Your task to perform on an android device: Open battery settings Image 0: 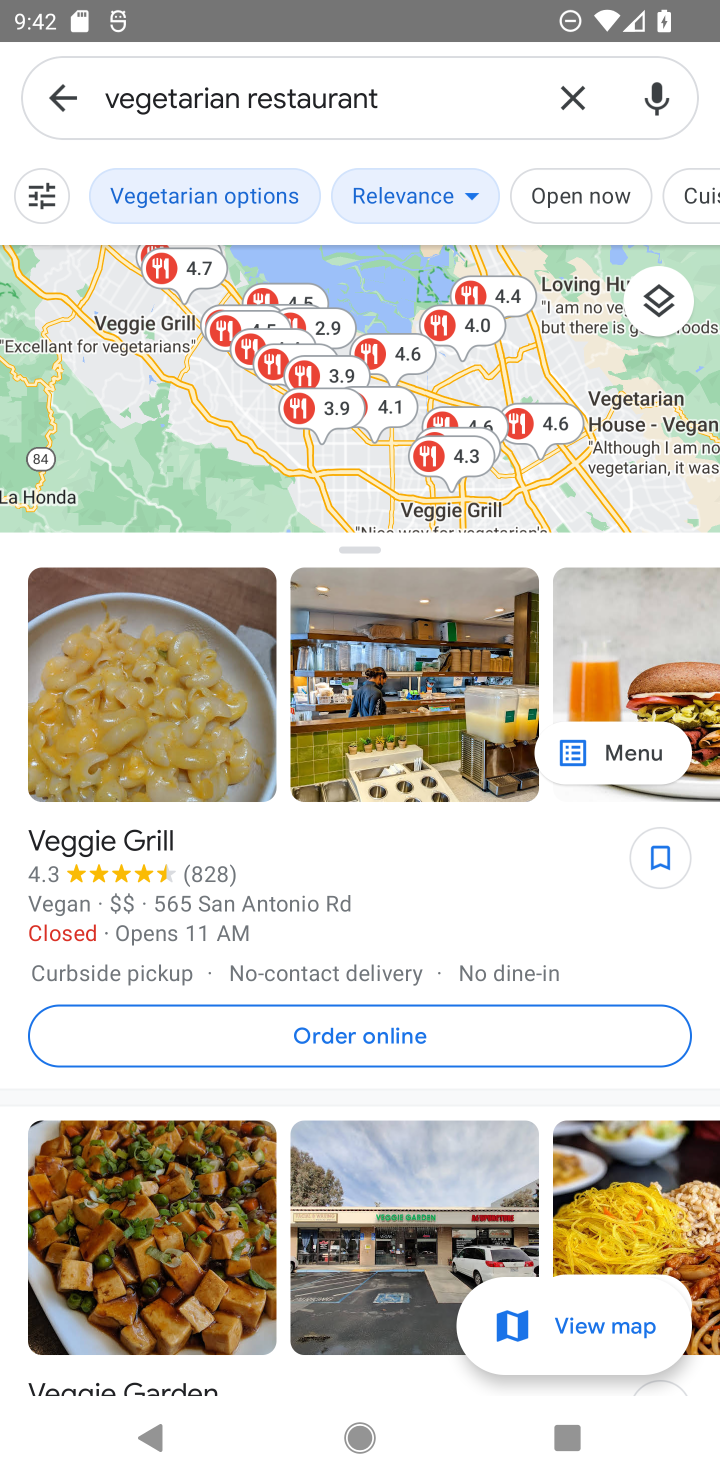
Step 0: press home button
Your task to perform on an android device: Open battery settings Image 1: 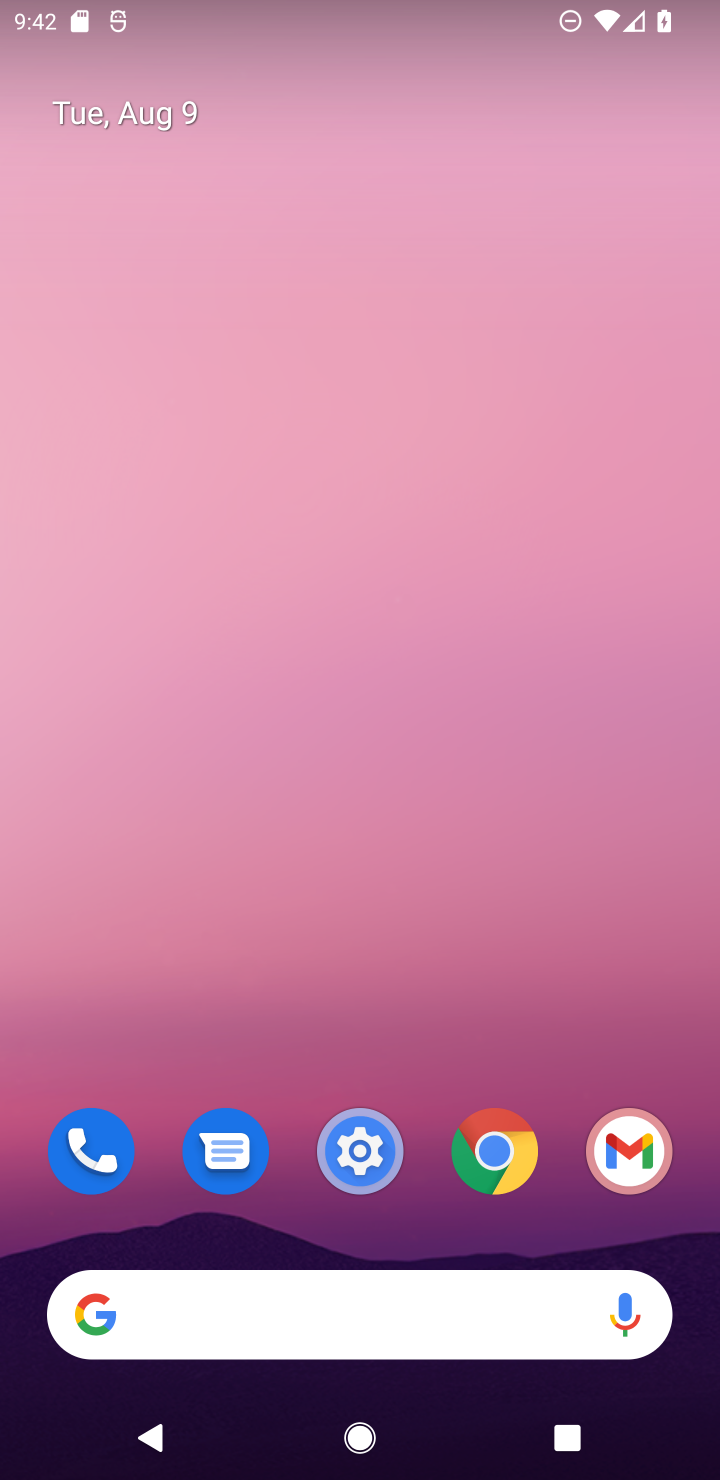
Step 1: click (362, 1175)
Your task to perform on an android device: Open battery settings Image 2: 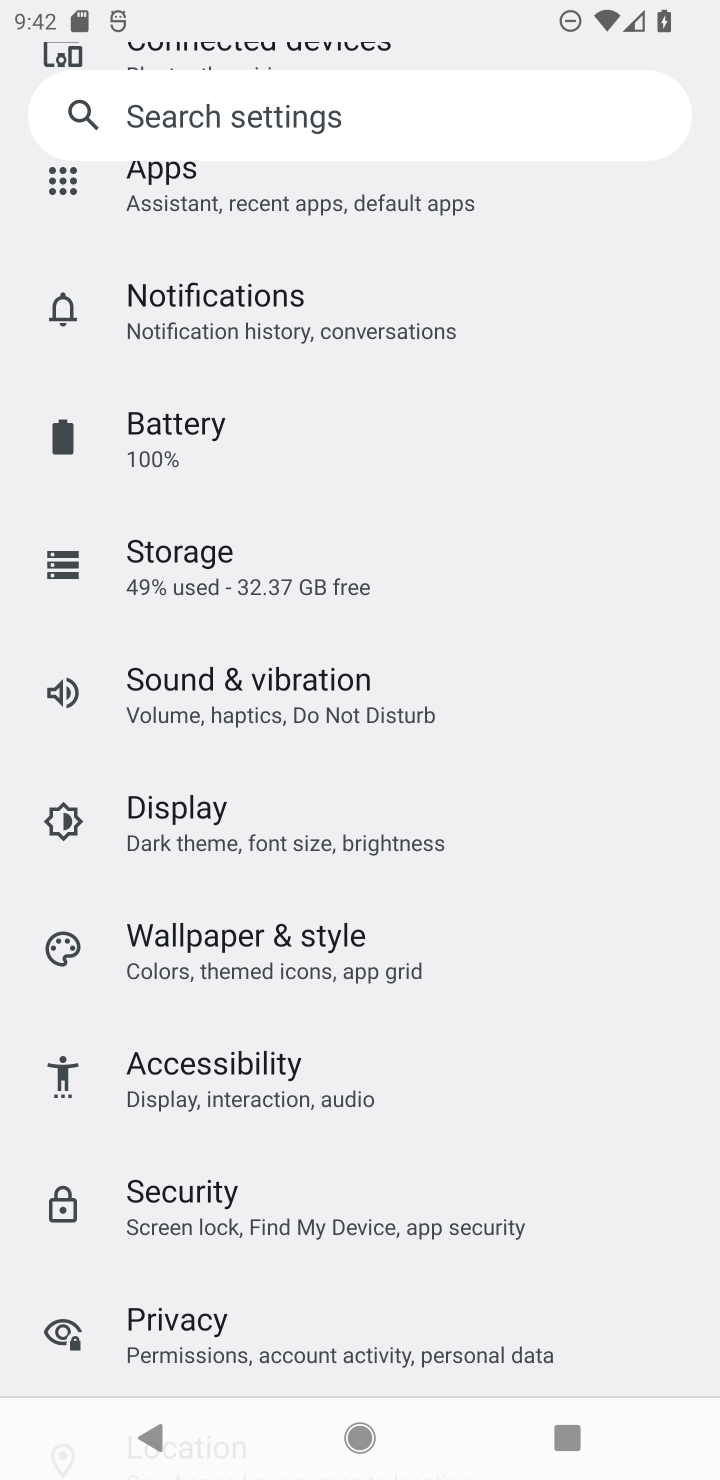
Step 2: click (264, 455)
Your task to perform on an android device: Open battery settings Image 3: 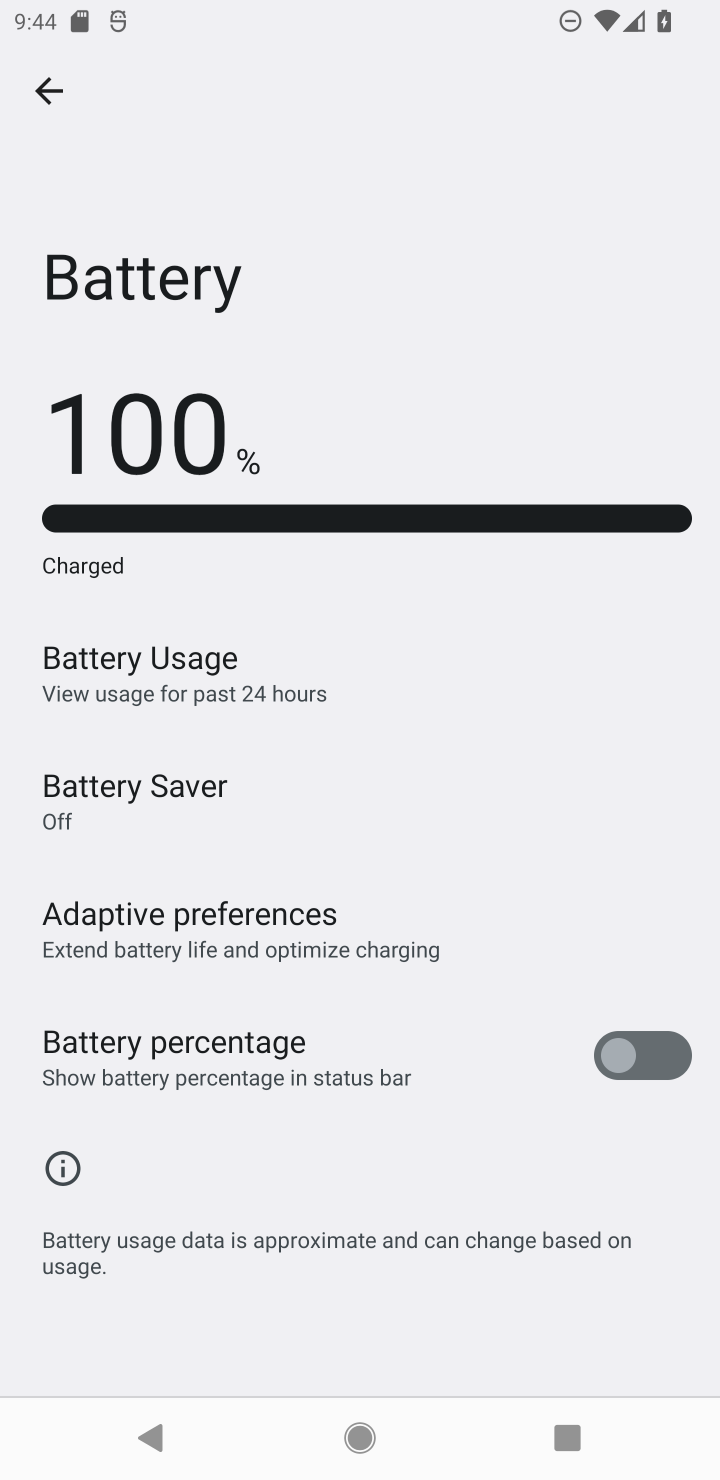
Step 3: task complete